Your task to perform on an android device: toggle translation in the chrome app Image 0: 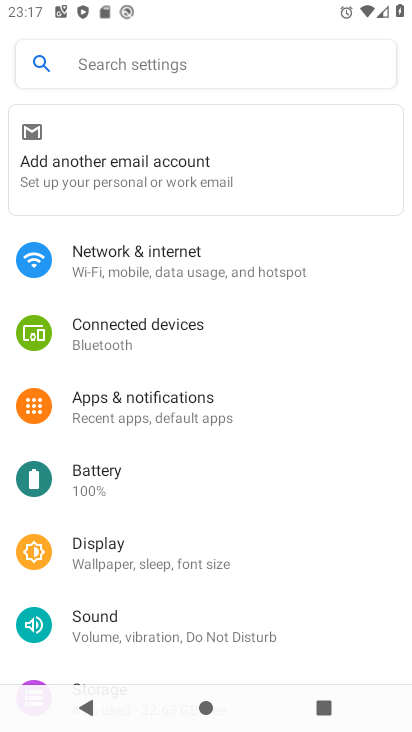
Step 0: press home button
Your task to perform on an android device: toggle translation in the chrome app Image 1: 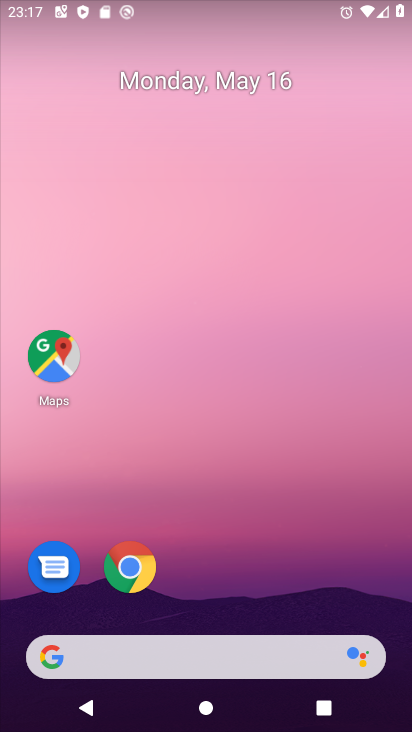
Step 1: click (122, 567)
Your task to perform on an android device: toggle translation in the chrome app Image 2: 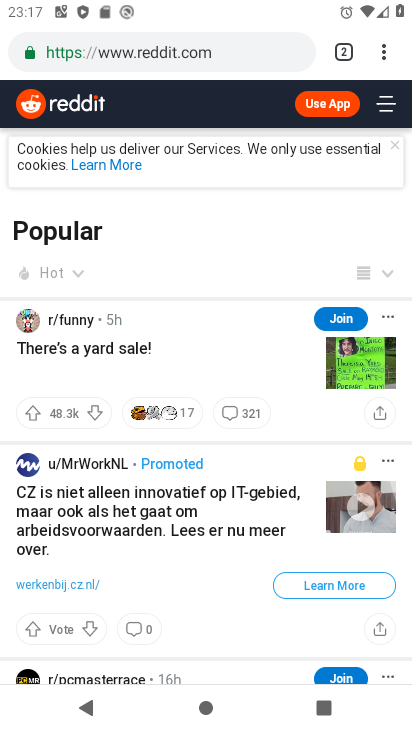
Step 2: click (379, 41)
Your task to perform on an android device: toggle translation in the chrome app Image 3: 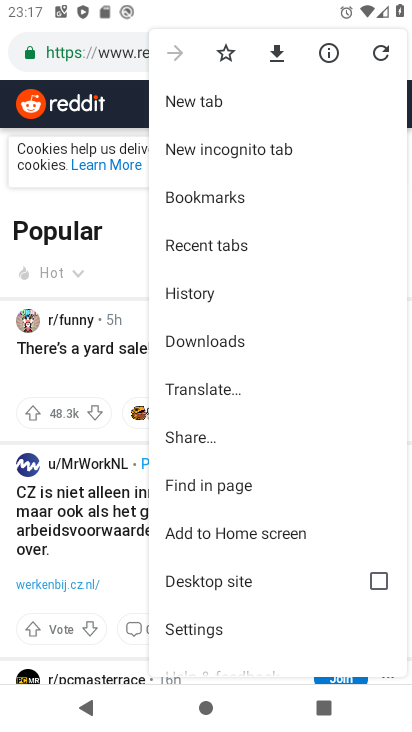
Step 3: click (206, 630)
Your task to perform on an android device: toggle translation in the chrome app Image 4: 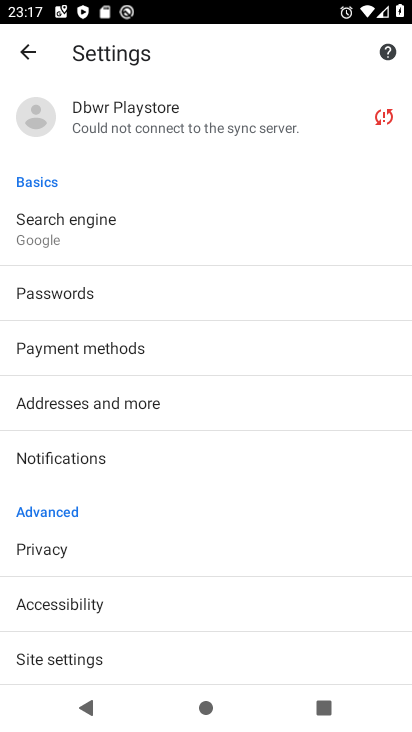
Step 4: drag from (209, 458) to (170, 211)
Your task to perform on an android device: toggle translation in the chrome app Image 5: 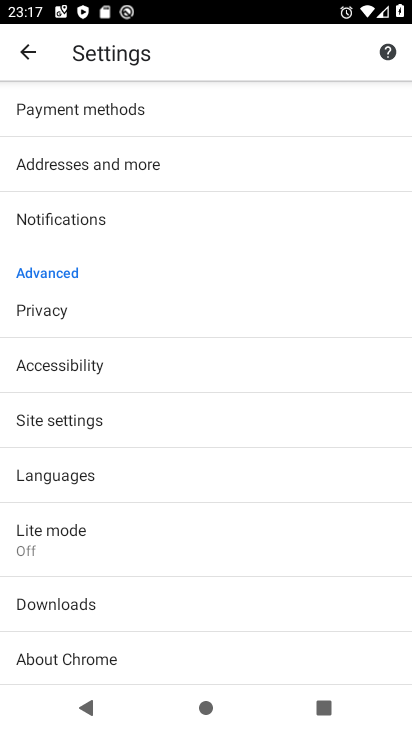
Step 5: click (85, 470)
Your task to perform on an android device: toggle translation in the chrome app Image 6: 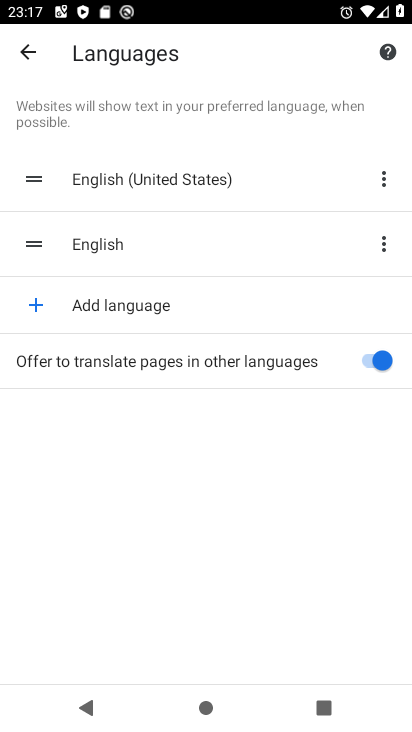
Step 6: click (382, 354)
Your task to perform on an android device: toggle translation in the chrome app Image 7: 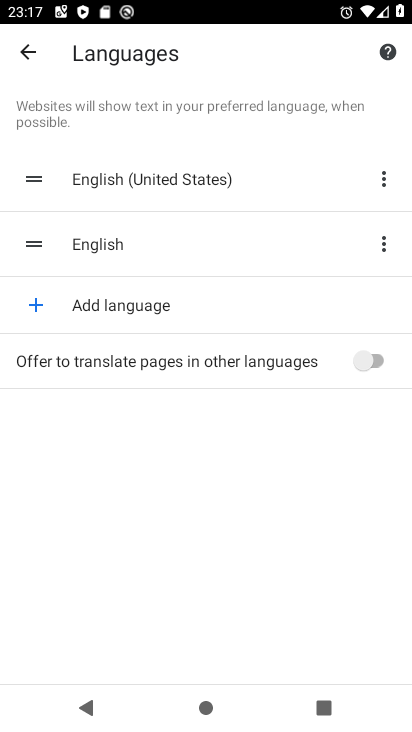
Step 7: task complete